Your task to perform on an android device: When is my next appointment? Image 0: 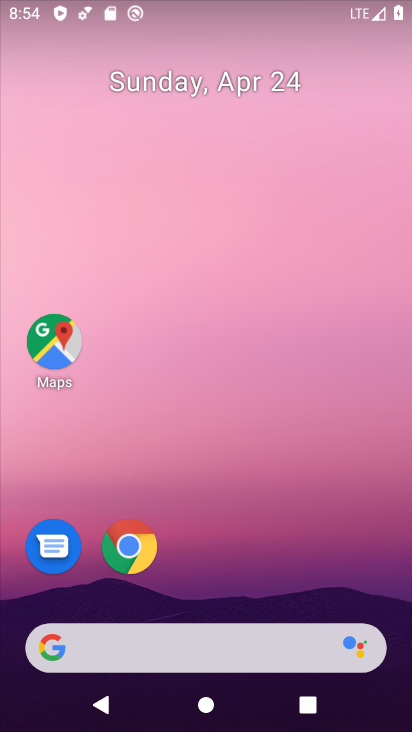
Step 0: drag from (339, 574) to (319, 179)
Your task to perform on an android device: When is my next appointment? Image 1: 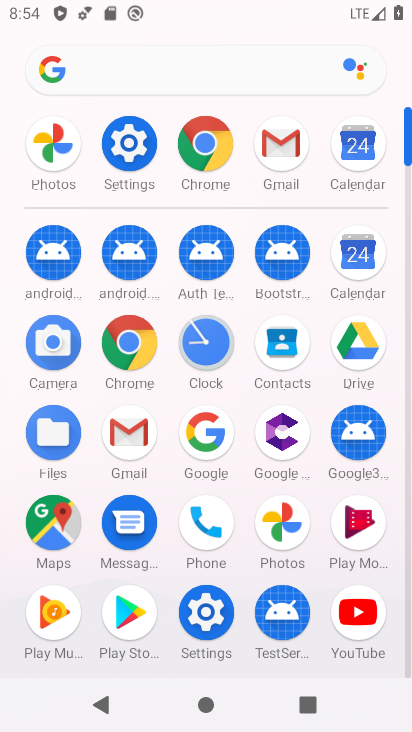
Step 1: click (360, 273)
Your task to perform on an android device: When is my next appointment? Image 2: 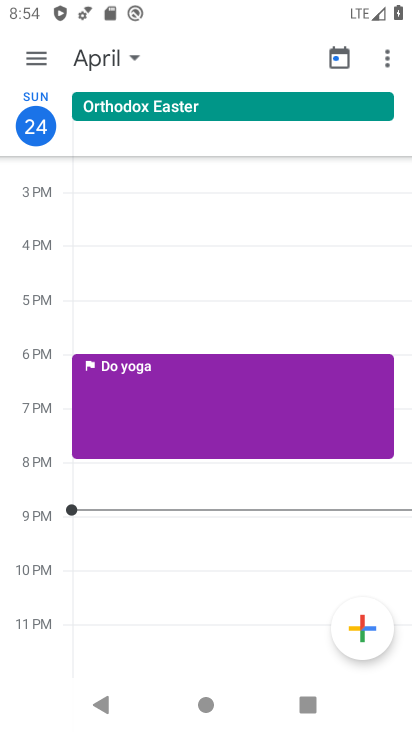
Step 2: click (126, 45)
Your task to perform on an android device: When is my next appointment? Image 3: 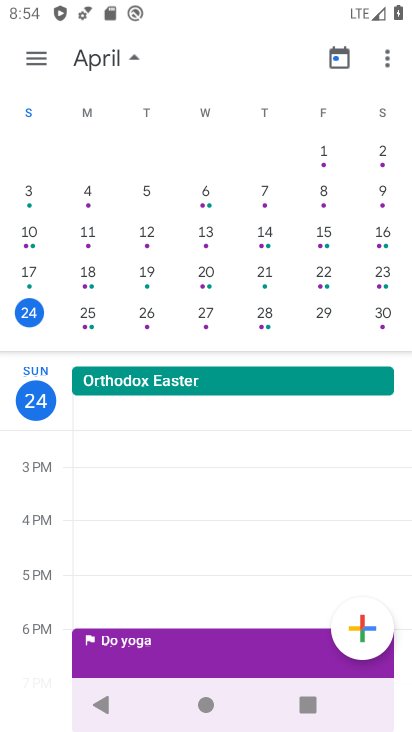
Step 3: click (92, 320)
Your task to perform on an android device: When is my next appointment? Image 4: 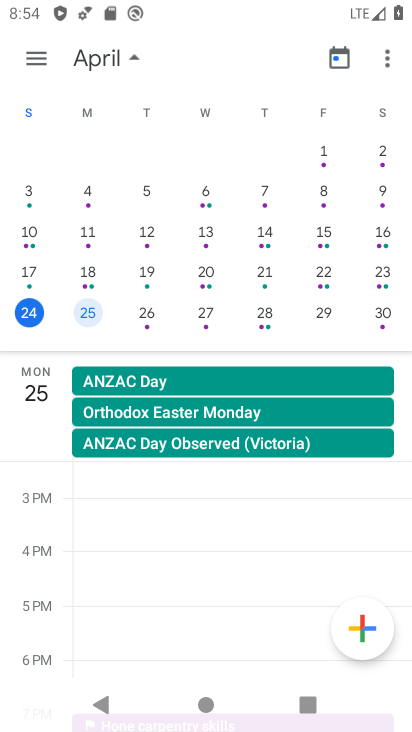
Step 4: click (142, 320)
Your task to perform on an android device: When is my next appointment? Image 5: 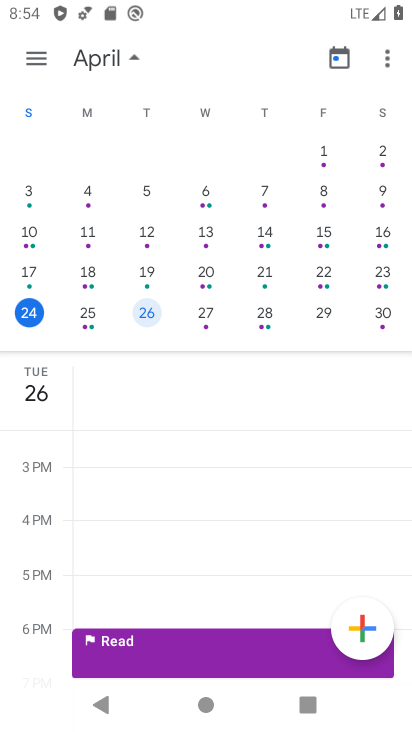
Step 5: click (123, 55)
Your task to perform on an android device: When is my next appointment? Image 6: 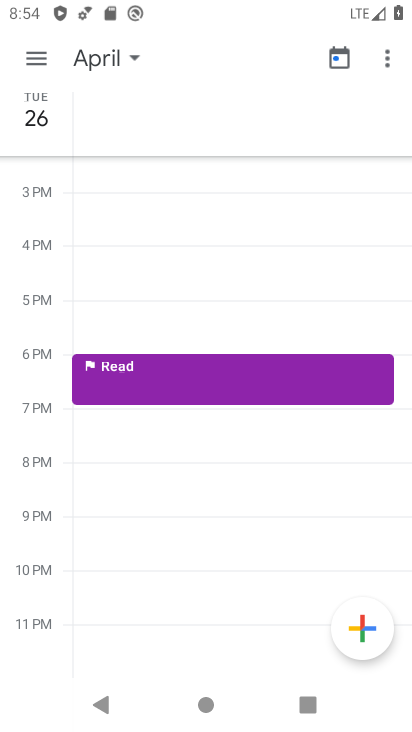
Step 6: task complete